Your task to perform on an android device: Turn off the flashlight Image 0: 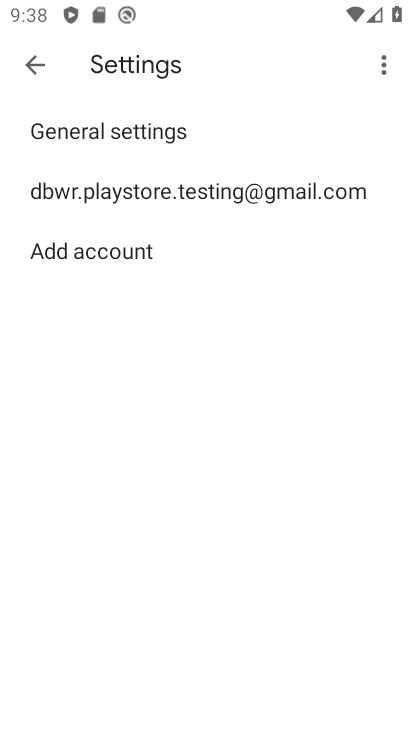
Step 0: press home button
Your task to perform on an android device: Turn off the flashlight Image 1: 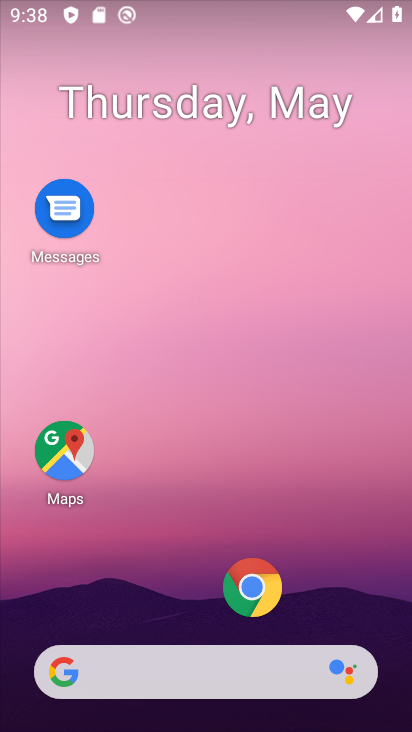
Step 1: drag from (175, 627) to (155, 50)
Your task to perform on an android device: Turn off the flashlight Image 2: 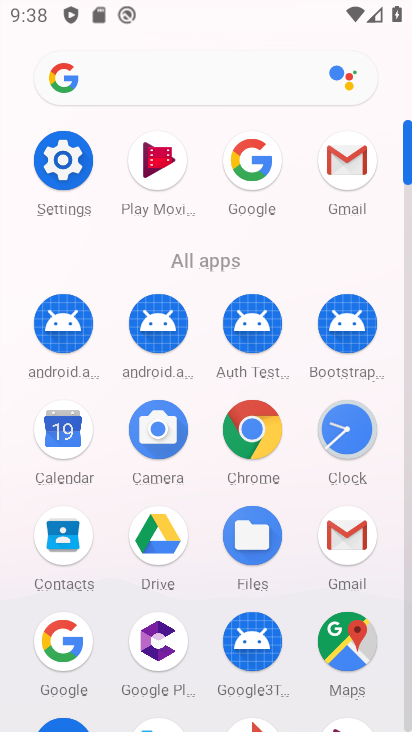
Step 2: click (62, 176)
Your task to perform on an android device: Turn off the flashlight Image 3: 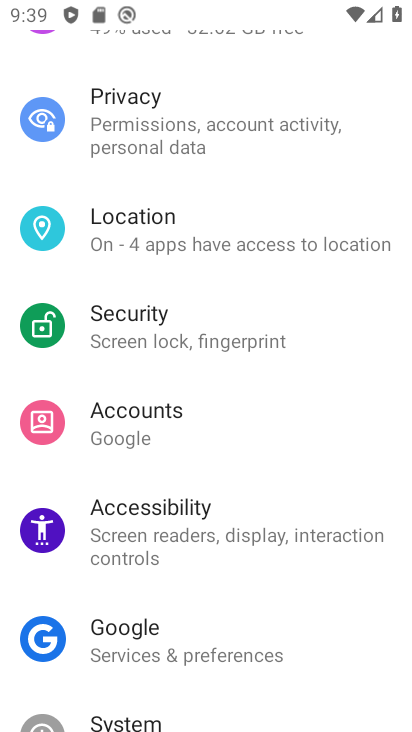
Step 3: task complete